Your task to perform on an android device: What is the recent news? Image 0: 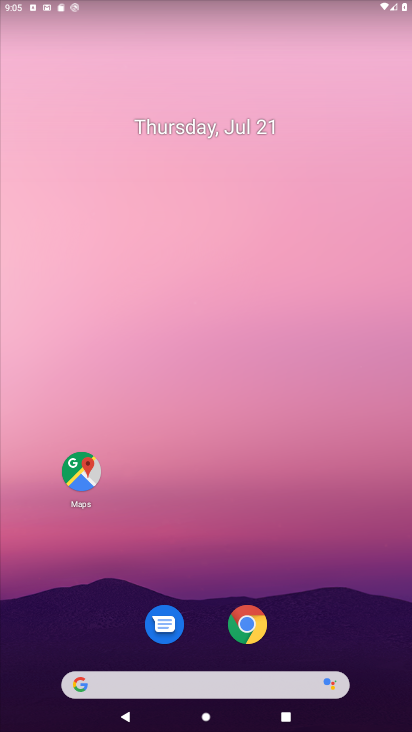
Step 0: click (107, 685)
Your task to perform on an android device: What is the recent news? Image 1: 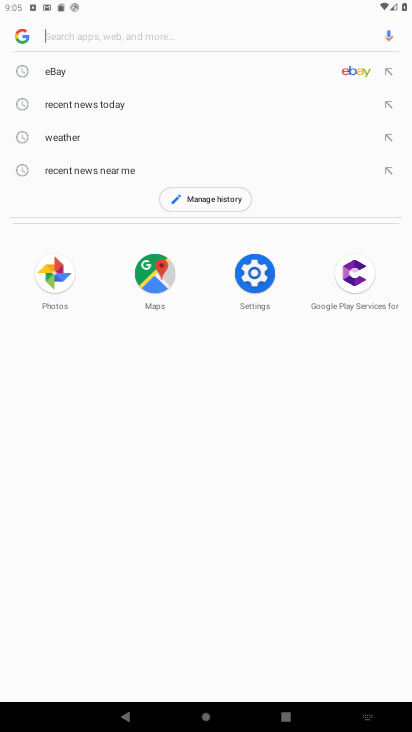
Step 1: click (124, 175)
Your task to perform on an android device: What is the recent news? Image 2: 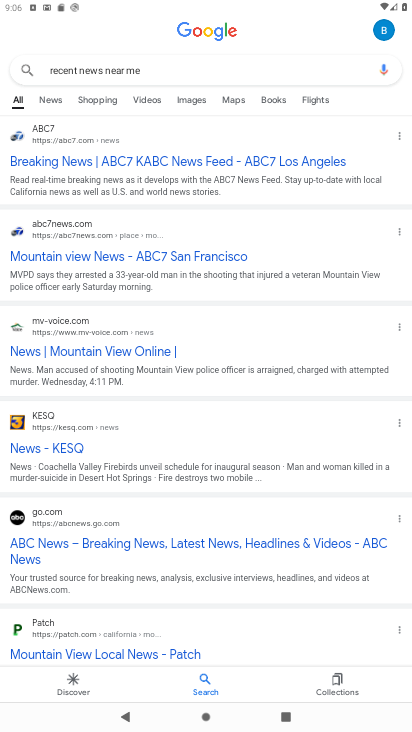
Step 2: task complete